Your task to perform on an android device: Go to wifi settings Image 0: 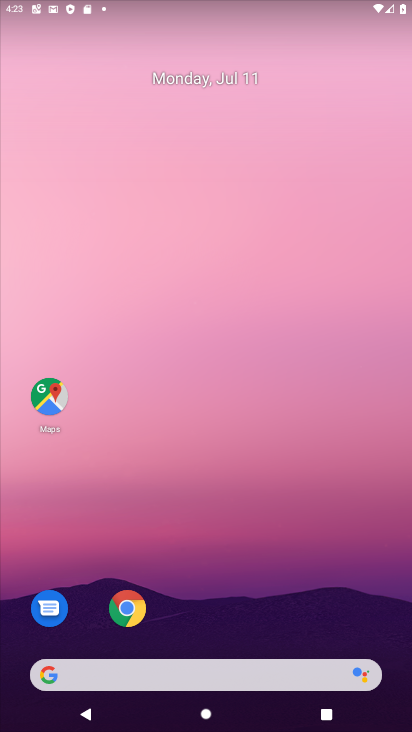
Step 0: drag from (262, 556) to (227, 34)
Your task to perform on an android device: Go to wifi settings Image 1: 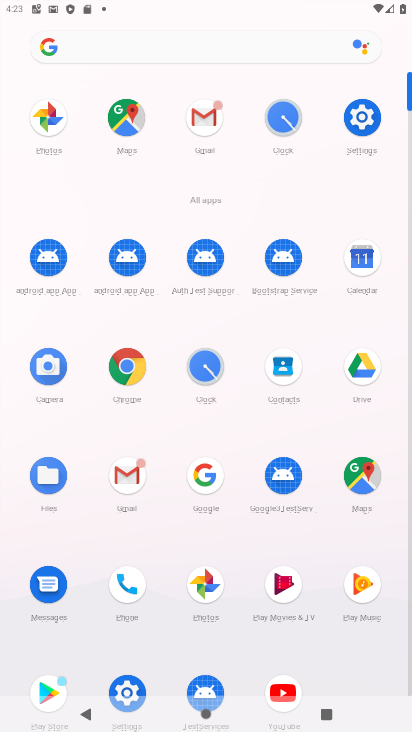
Step 1: click (365, 123)
Your task to perform on an android device: Go to wifi settings Image 2: 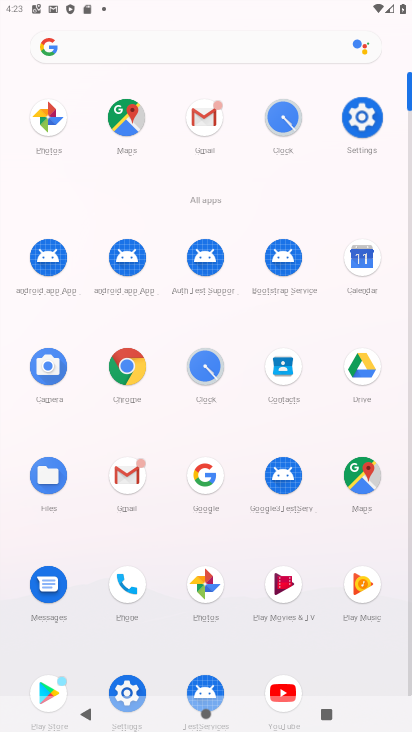
Step 2: click (366, 122)
Your task to perform on an android device: Go to wifi settings Image 3: 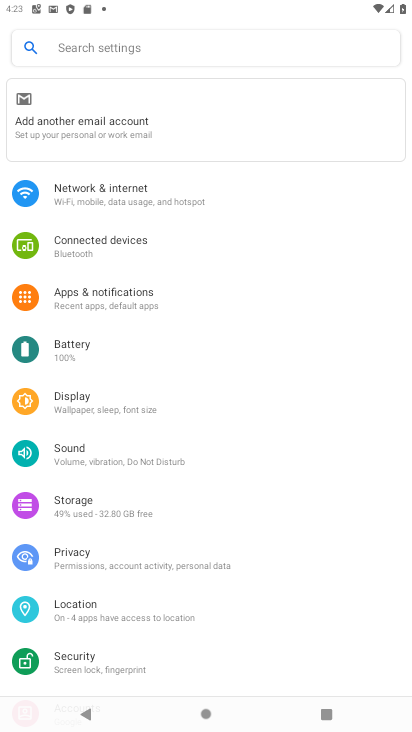
Step 3: drag from (129, 612) to (111, 254)
Your task to perform on an android device: Go to wifi settings Image 4: 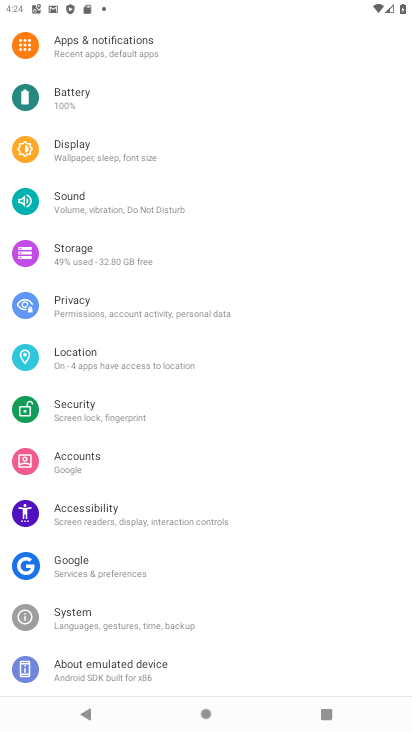
Step 4: drag from (102, 137) to (87, 578)
Your task to perform on an android device: Go to wifi settings Image 5: 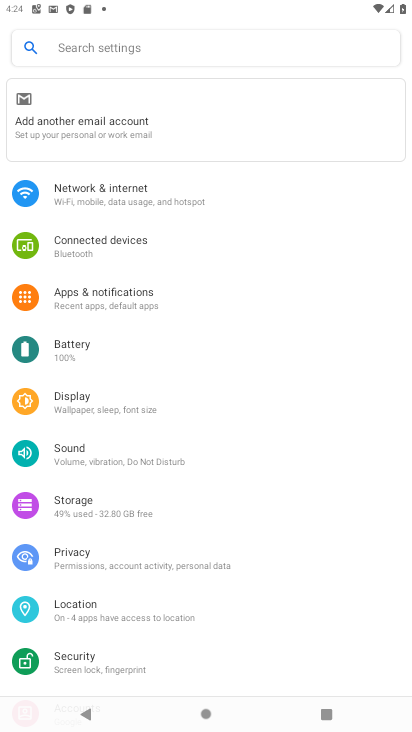
Step 5: click (90, 199)
Your task to perform on an android device: Go to wifi settings Image 6: 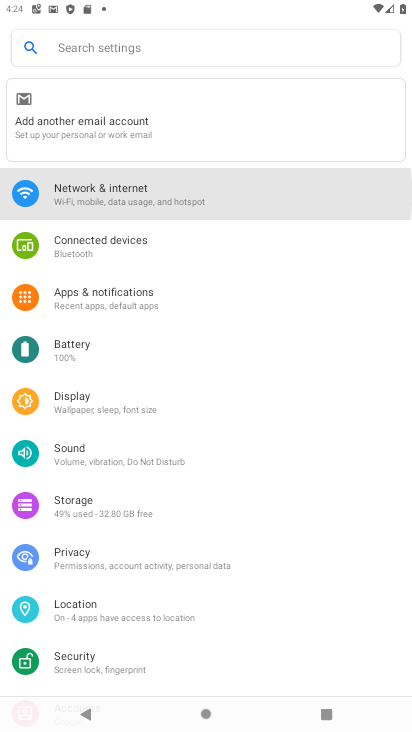
Step 6: click (94, 197)
Your task to perform on an android device: Go to wifi settings Image 7: 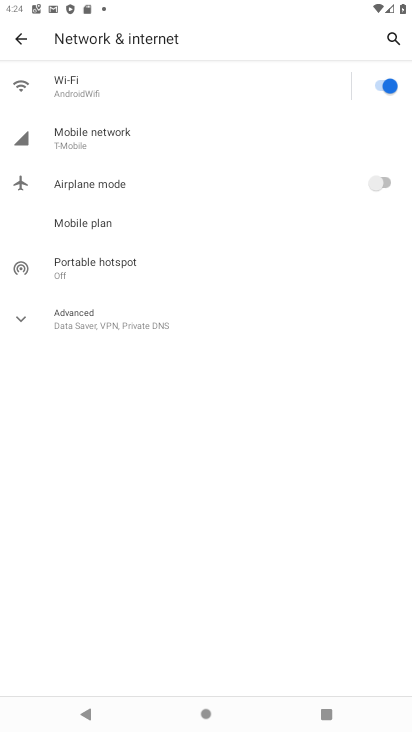
Step 7: click (76, 91)
Your task to perform on an android device: Go to wifi settings Image 8: 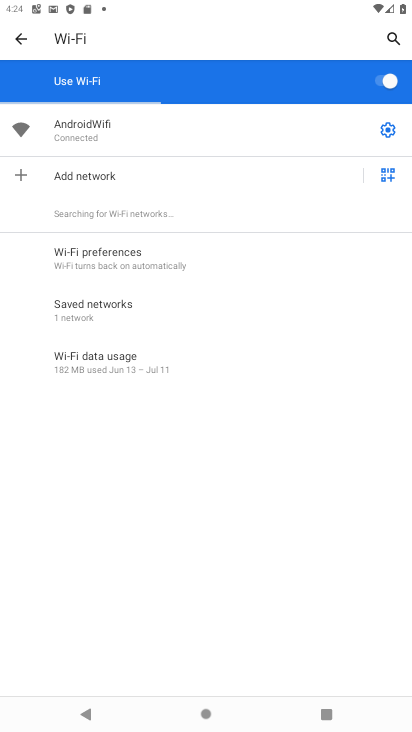
Step 8: task complete